Your task to perform on an android device: What's on my calendar today? Image 0: 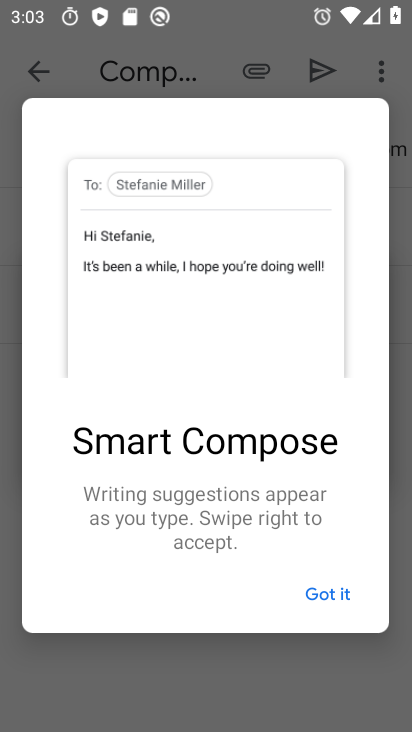
Step 0: press home button
Your task to perform on an android device: What's on my calendar today? Image 1: 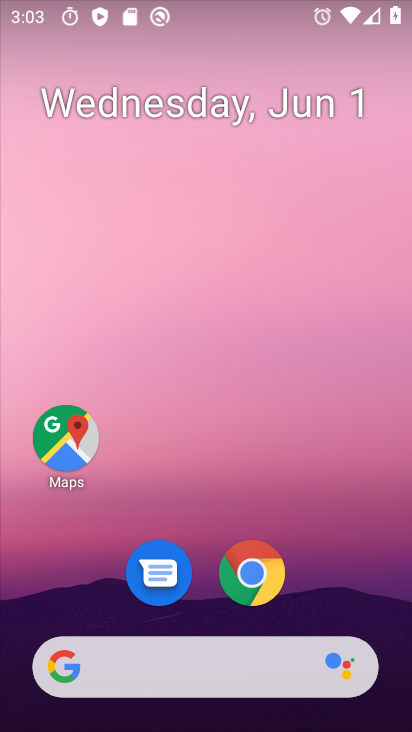
Step 1: drag from (200, 614) to (206, 243)
Your task to perform on an android device: What's on my calendar today? Image 2: 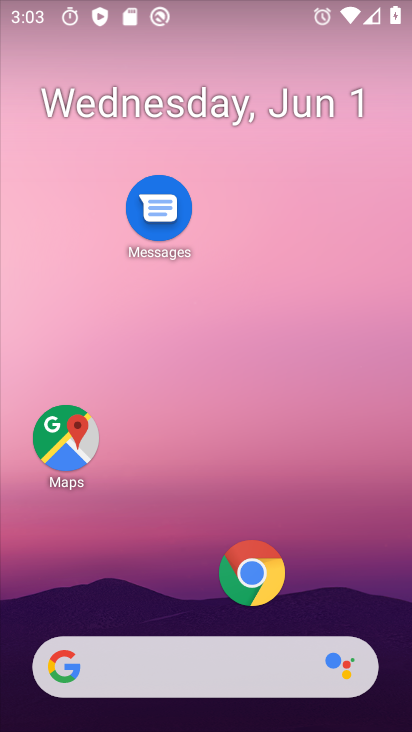
Step 2: drag from (190, 599) to (220, 171)
Your task to perform on an android device: What's on my calendar today? Image 3: 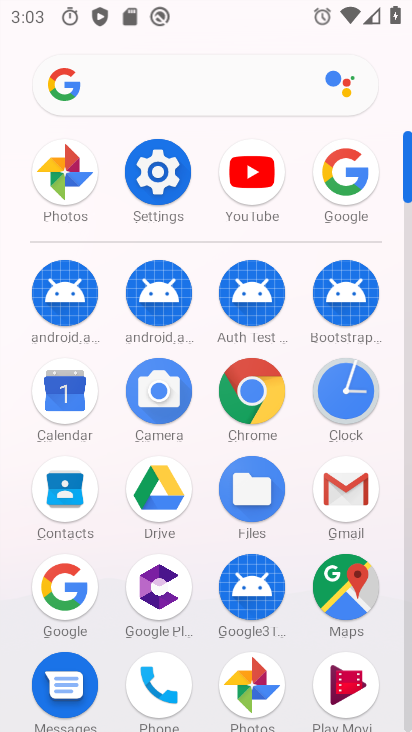
Step 3: click (65, 403)
Your task to perform on an android device: What's on my calendar today? Image 4: 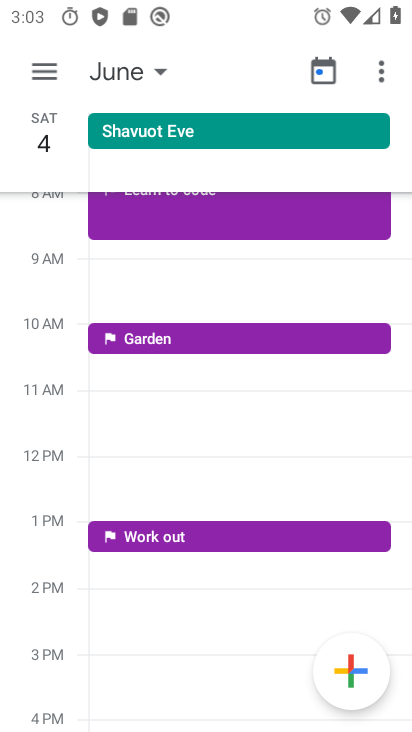
Step 4: click (147, 80)
Your task to perform on an android device: What's on my calendar today? Image 5: 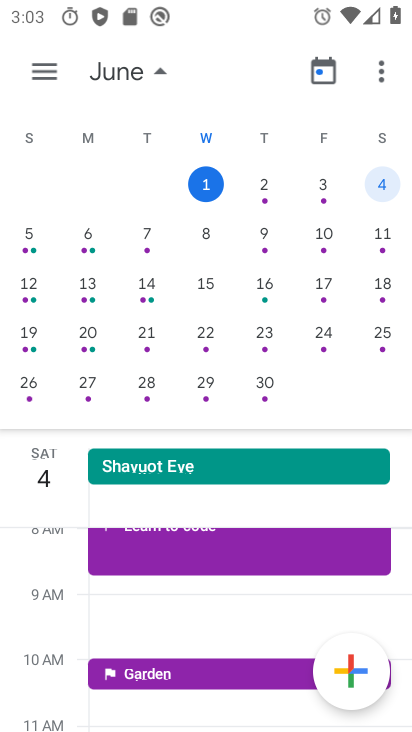
Step 5: click (260, 185)
Your task to perform on an android device: What's on my calendar today? Image 6: 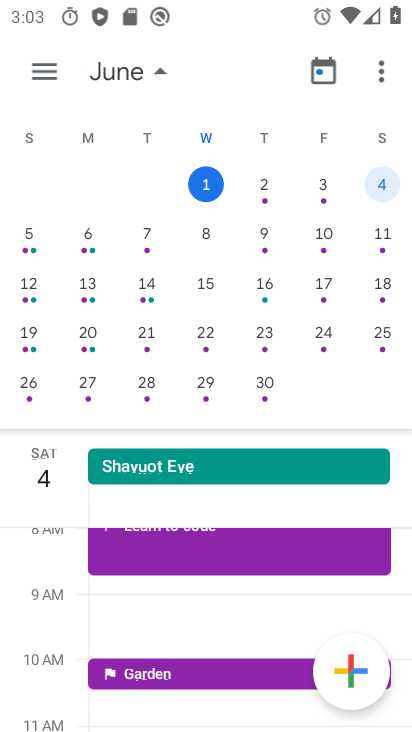
Step 6: click (211, 188)
Your task to perform on an android device: What's on my calendar today? Image 7: 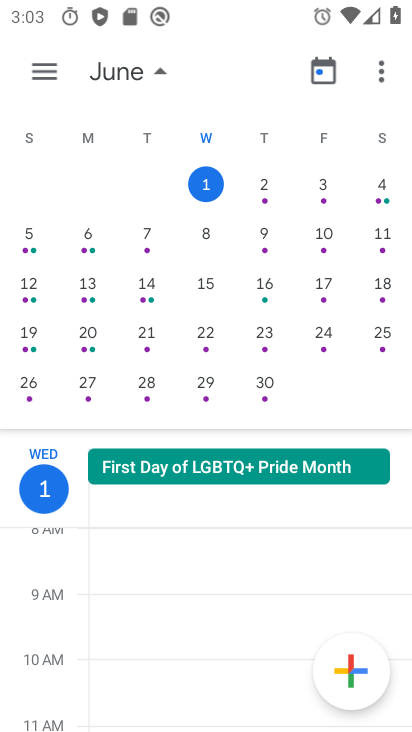
Step 7: task complete